Your task to perform on an android device: Open calendar and show me the third week of next month Image 0: 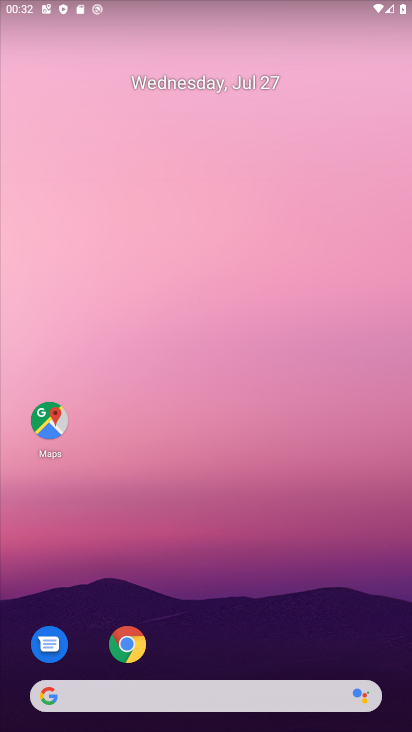
Step 0: drag from (289, 531) to (193, 133)
Your task to perform on an android device: Open calendar and show me the third week of next month Image 1: 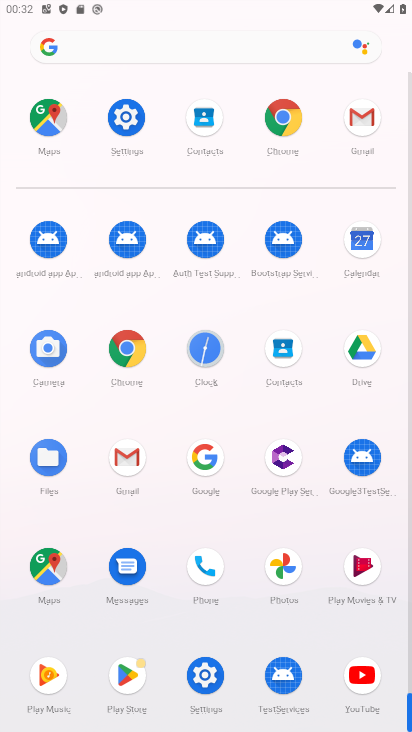
Step 1: click (359, 239)
Your task to perform on an android device: Open calendar and show me the third week of next month Image 2: 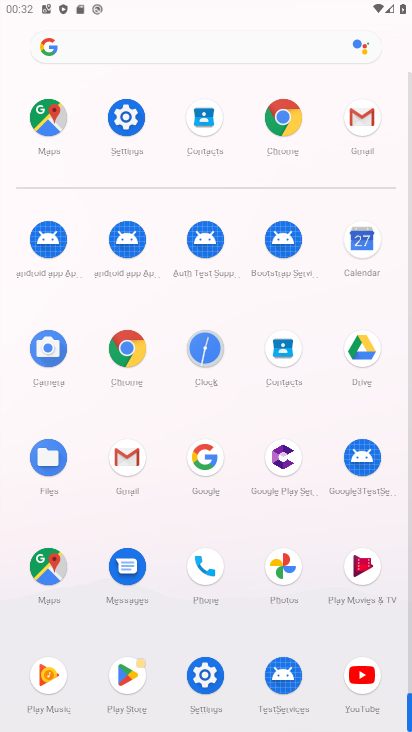
Step 2: click (359, 240)
Your task to perform on an android device: Open calendar and show me the third week of next month Image 3: 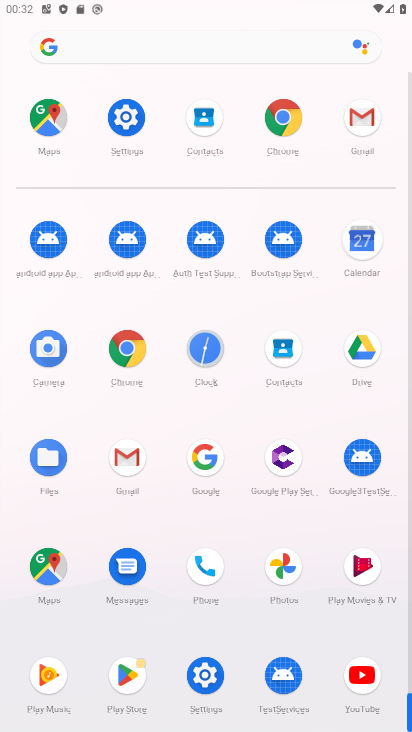
Step 3: click (359, 240)
Your task to perform on an android device: Open calendar and show me the third week of next month Image 4: 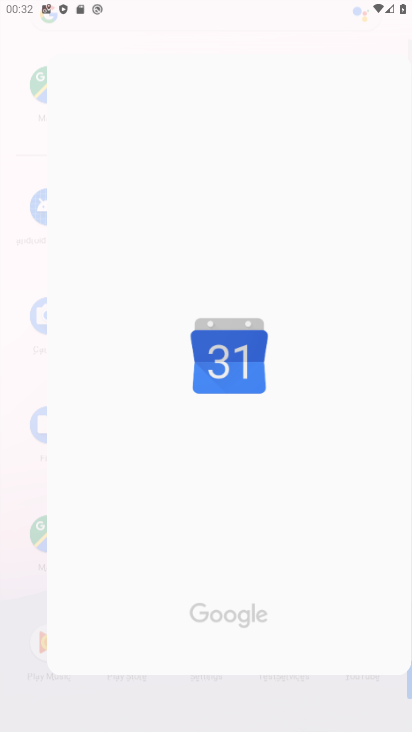
Step 4: click (360, 241)
Your task to perform on an android device: Open calendar and show me the third week of next month Image 5: 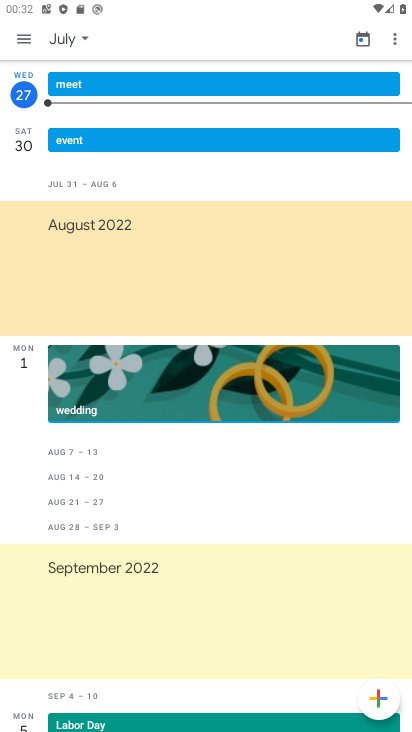
Step 5: click (81, 37)
Your task to perform on an android device: Open calendar and show me the third week of next month Image 6: 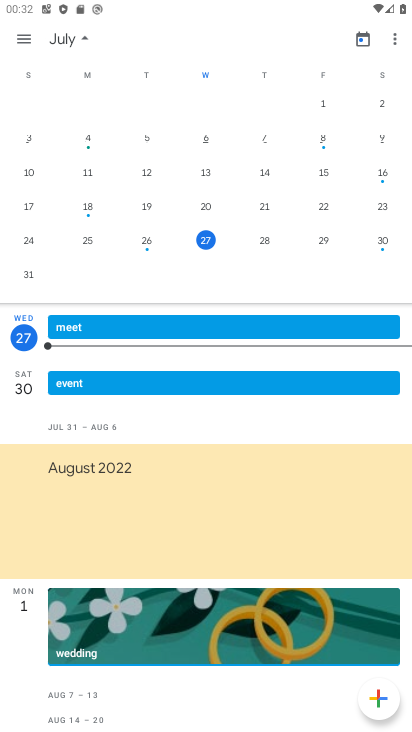
Step 6: drag from (292, 191) to (32, 192)
Your task to perform on an android device: Open calendar and show me the third week of next month Image 7: 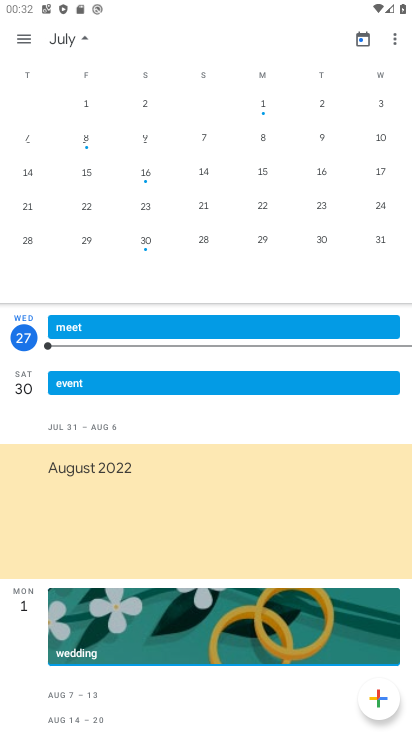
Step 7: drag from (204, 161) to (4, 204)
Your task to perform on an android device: Open calendar and show me the third week of next month Image 8: 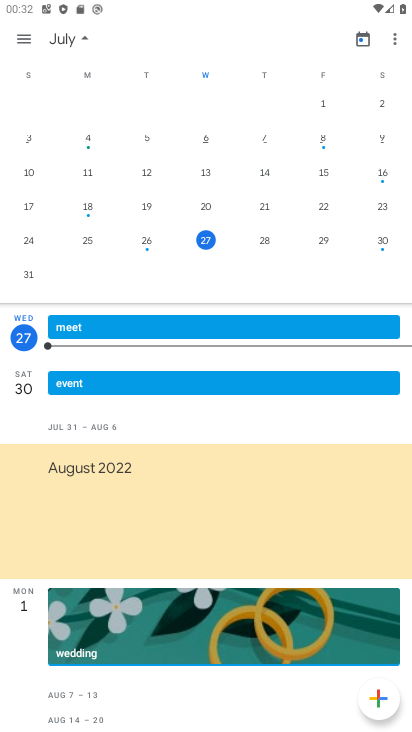
Step 8: drag from (312, 190) to (26, 143)
Your task to perform on an android device: Open calendar and show me the third week of next month Image 9: 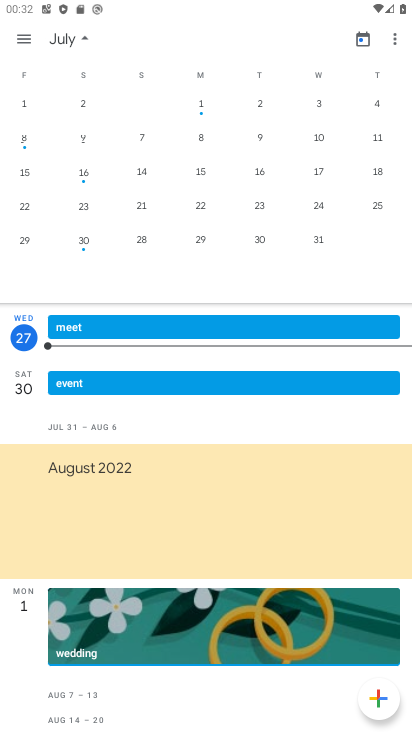
Step 9: drag from (260, 142) to (15, 172)
Your task to perform on an android device: Open calendar and show me the third week of next month Image 10: 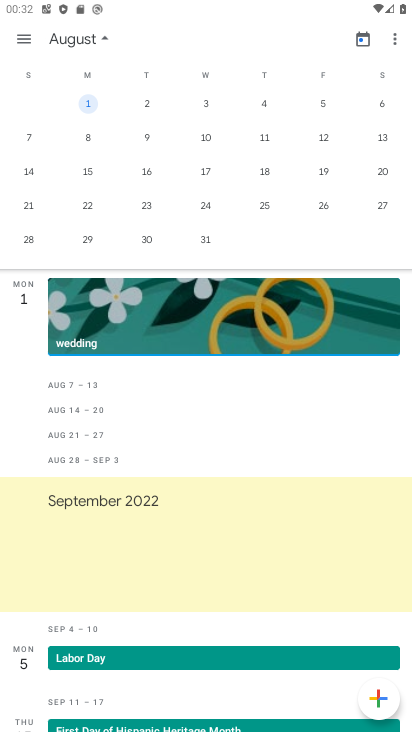
Step 10: click (139, 174)
Your task to perform on an android device: Open calendar and show me the third week of next month Image 11: 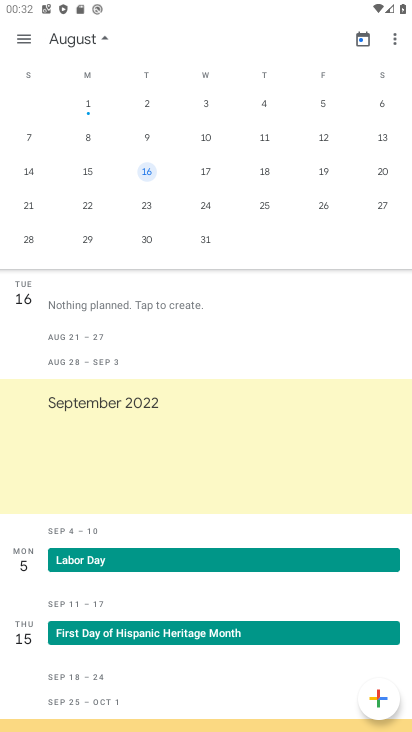
Step 11: click (139, 174)
Your task to perform on an android device: Open calendar and show me the third week of next month Image 12: 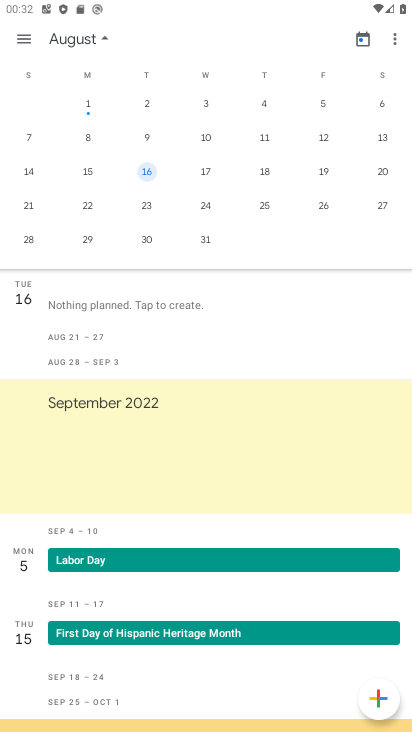
Step 12: click (139, 174)
Your task to perform on an android device: Open calendar and show me the third week of next month Image 13: 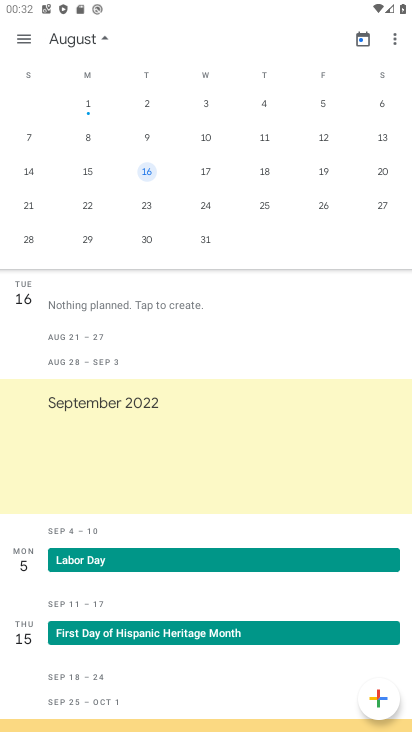
Step 13: task complete